Your task to perform on an android device: Go to Yahoo.com Image 0: 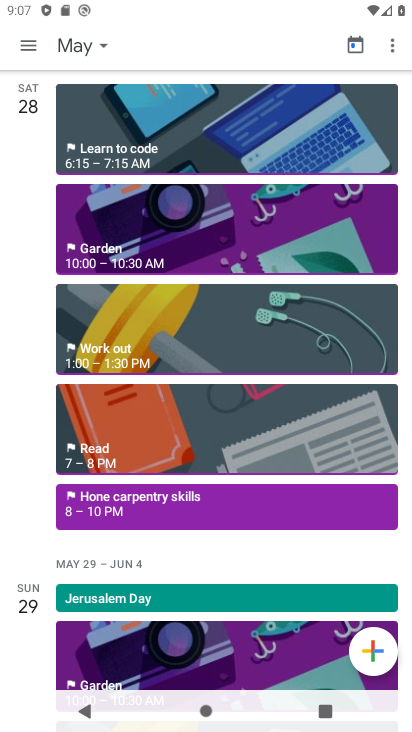
Step 0: press home button
Your task to perform on an android device: Go to Yahoo.com Image 1: 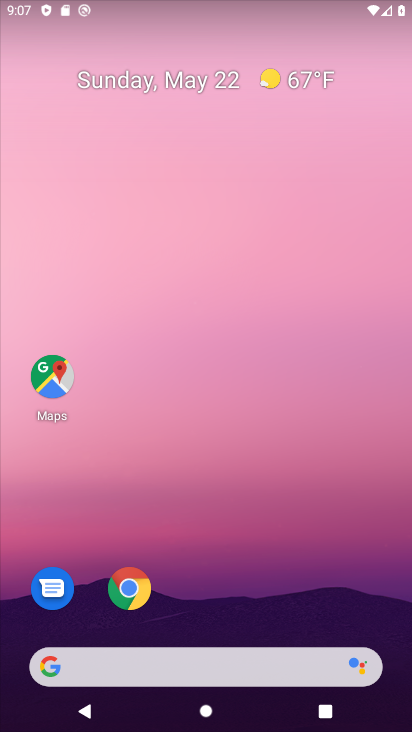
Step 1: click (147, 590)
Your task to perform on an android device: Go to Yahoo.com Image 2: 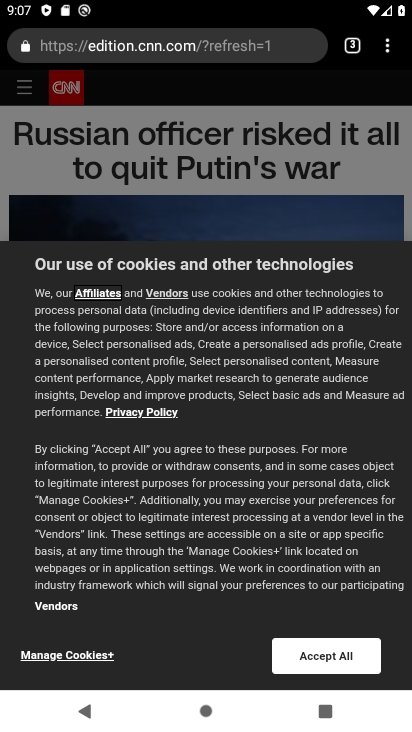
Step 2: click (337, 47)
Your task to perform on an android device: Go to Yahoo.com Image 3: 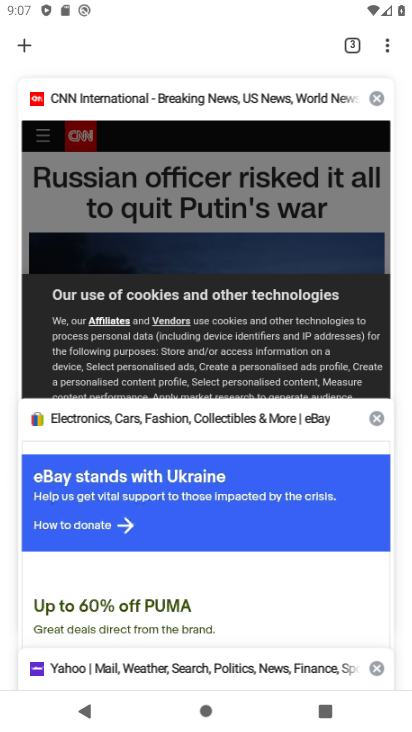
Step 3: click (24, 42)
Your task to perform on an android device: Go to Yahoo.com Image 4: 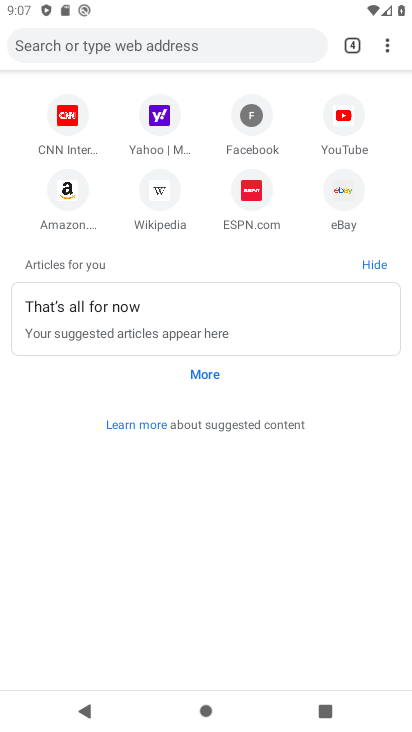
Step 4: click (160, 121)
Your task to perform on an android device: Go to Yahoo.com Image 5: 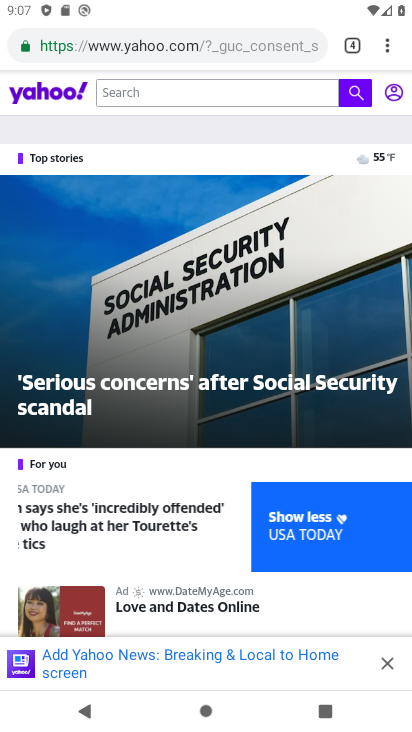
Step 5: task complete